Your task to perform on an android device: Open maps Image 0: 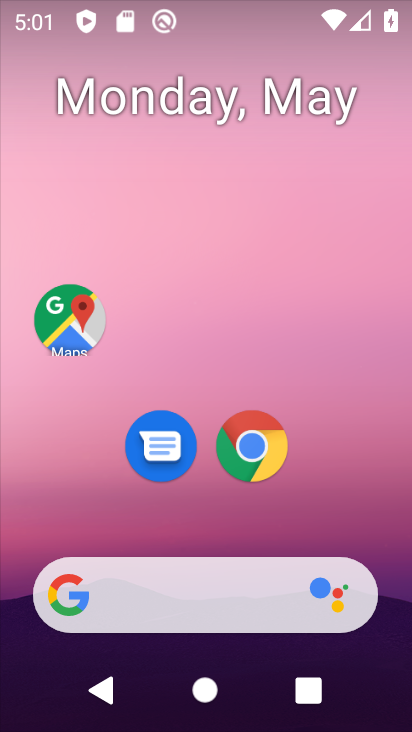
Step 0: click (62, 324)
Your task to perform on an android device: Open maps Image 1: 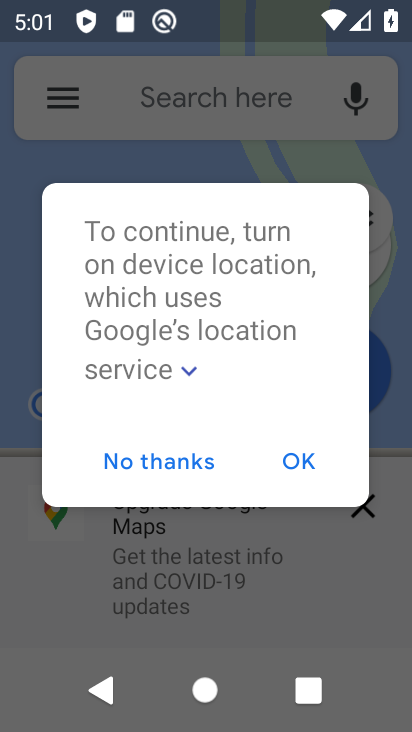
Step 1: click (303, 454)
Your task to perform on an android device: Open maps Image 2: 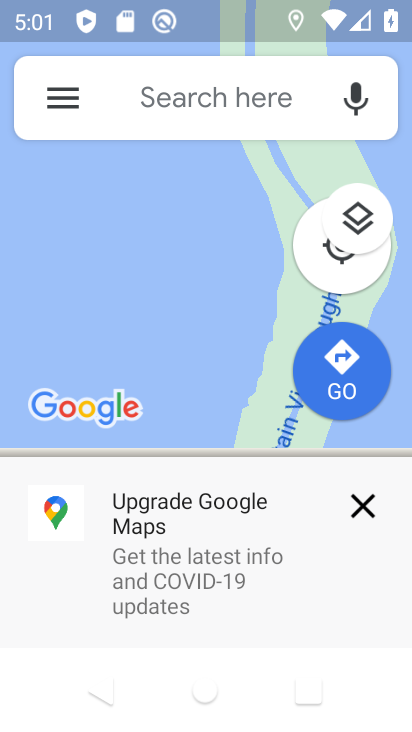
Step 2: click (368, 503)
Your task to perform on an android device: Open maps Image 3: 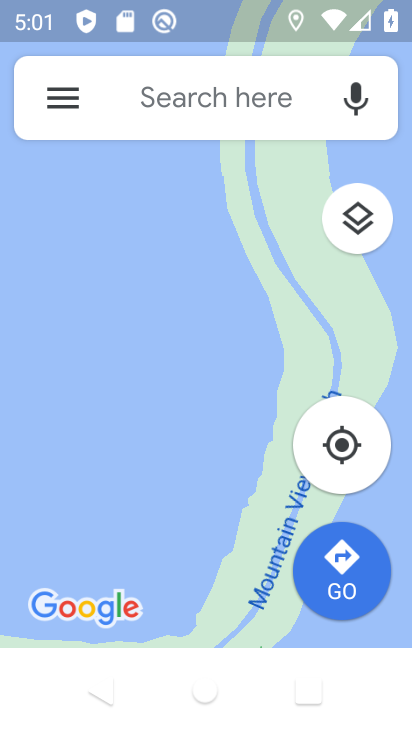
Step 3: task complete